Your task to perform on an android device: check out phone information Image 0: 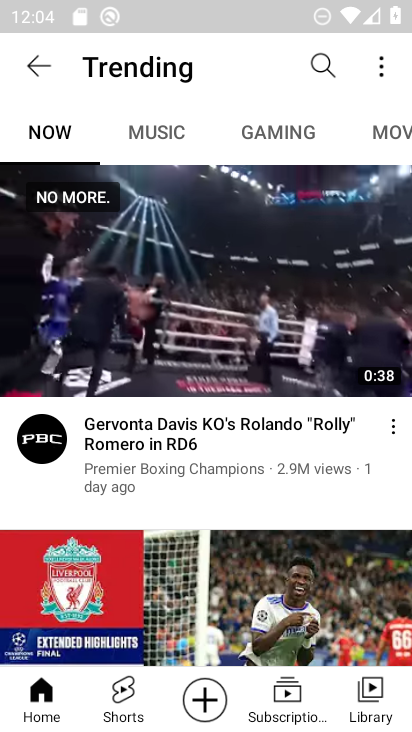
Step 0: press home button
Your task to perform on an android device: check out phone information Image 1: 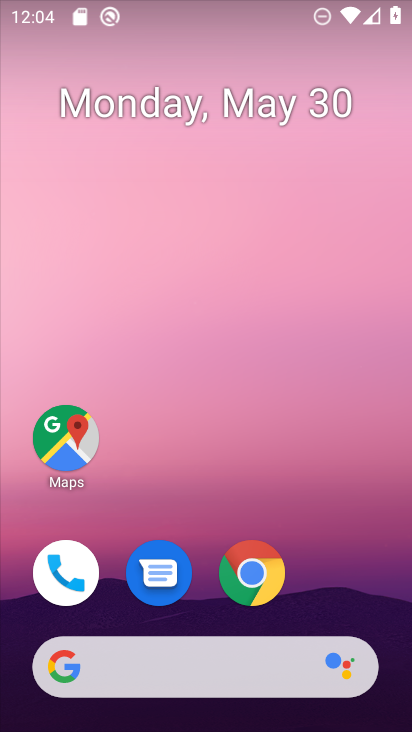
Step 1: drag from (353, 533) to (309, 241)
Your task to perform on an android device: check out phone information Image 2: 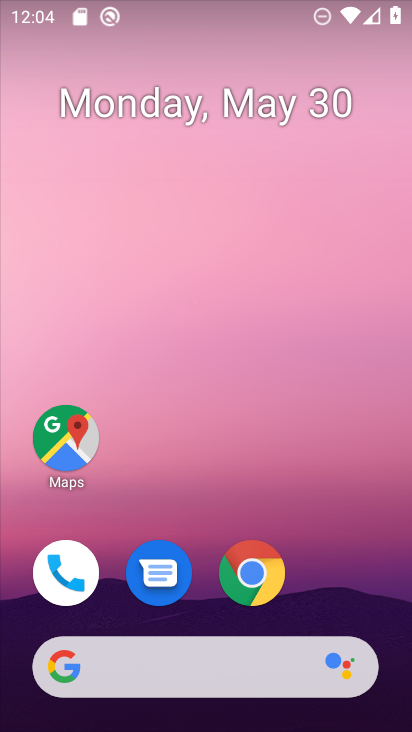
Step 2: drag from (347, 509) to (323, 198)
Your task to perform on an android device: check out phone information Image 3: 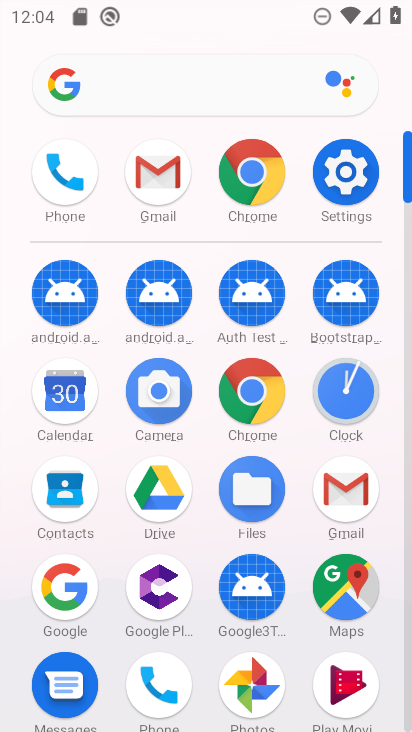
Step 3: click (339, 178)
Your task to perform on an android device: check out phone information Image 4: 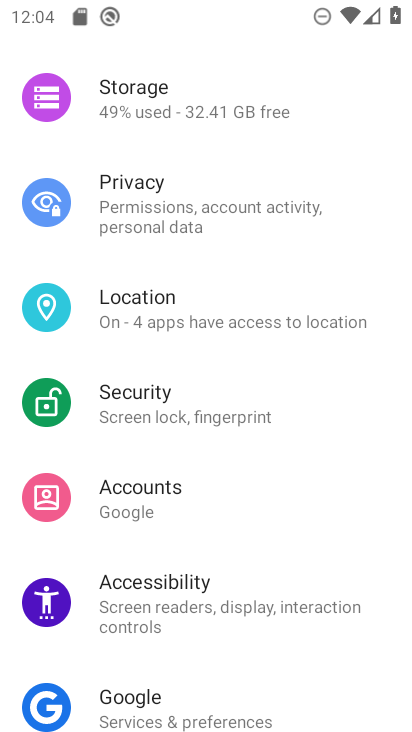
Step 4: drag from (324, 684) to (300, 57)
Your task to perform on an android device: check out phone information Image 5: 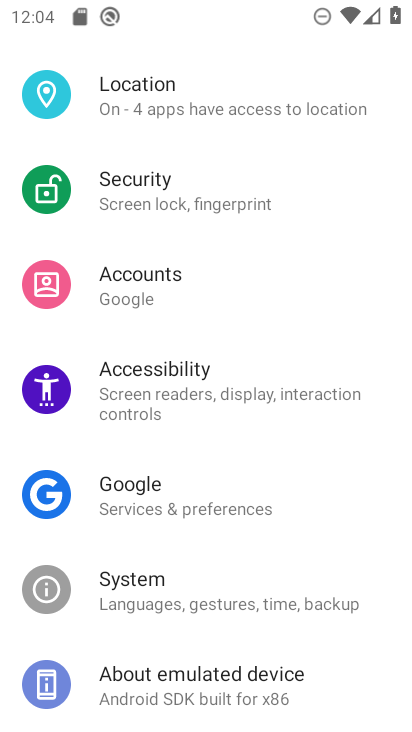
Step 5: click (191, 666)
Your task to perform on an android device: check out phone information Image 6: 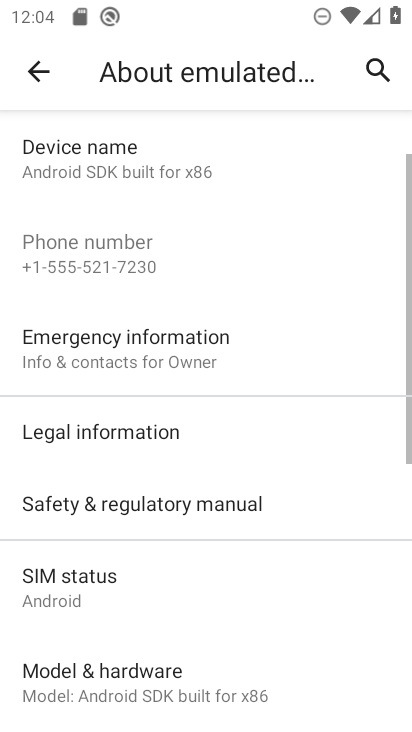
Step 6: task complete